Your task to perform on an android device: Show me productivity apps on the Play Store Image 0: 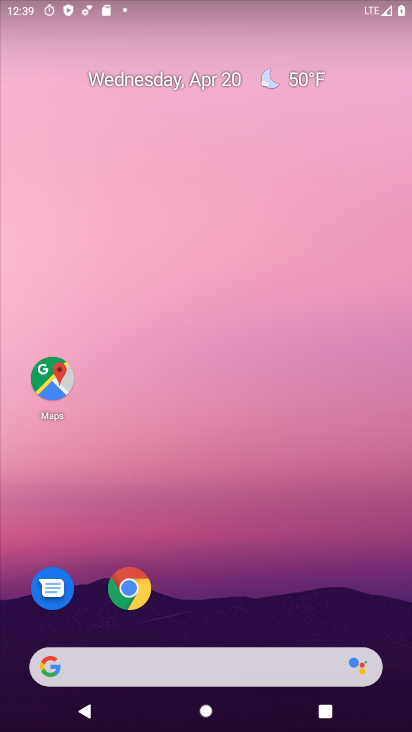
Step 0: drag from (216, 636) to (216, 82)
Your task to perform on an android device: Show me productivity apps on the Play Store Image 1: 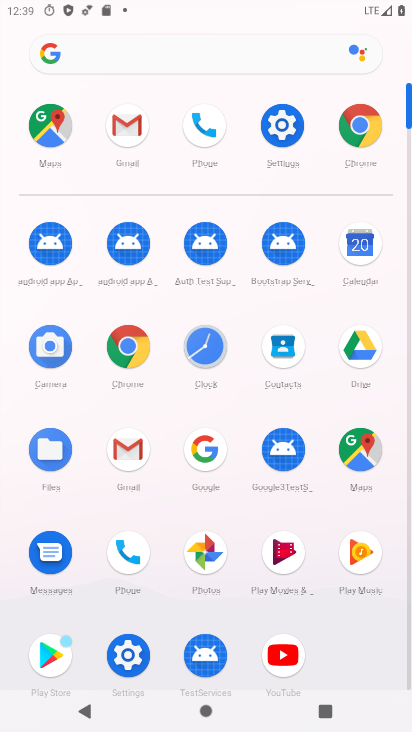
Step 1: click (61, 650)
Your task to perform on an android device: Show me productivity apps on the Play Store Image 2: 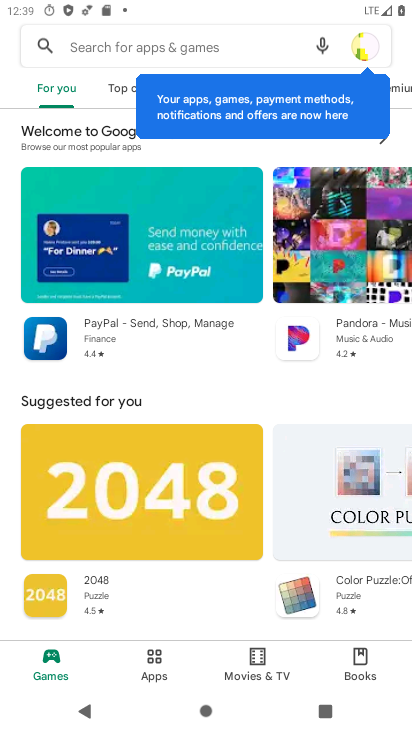
Step 2: click (155, 676)
Your task to perform on an android device: Show me productivity apps on the Play Store Image 3: 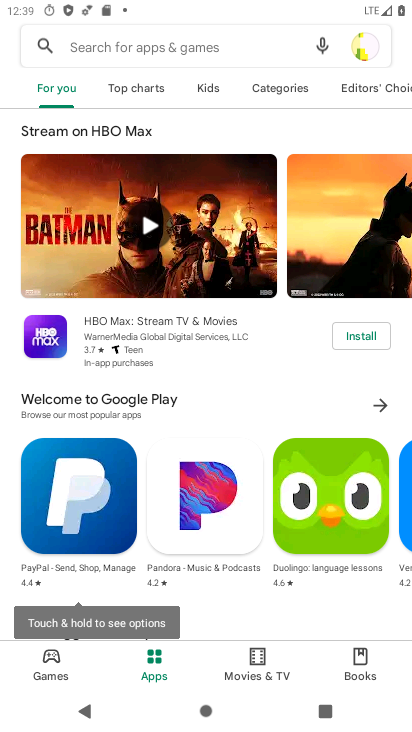
Step 3: click (281, 88)
Your task to perform on an android device: Show me productivity apps on the Play Store Image 4: 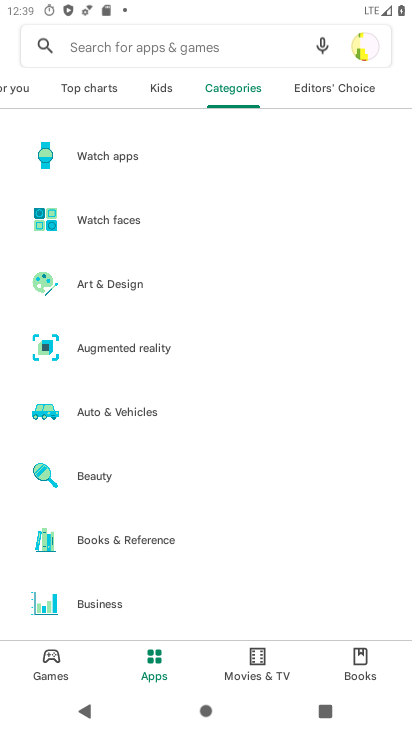
Step 4: drag from (287, 509) to (239, 12)
Your task to perform on an android device: Show me productivity apps on the Play Store Image 5: 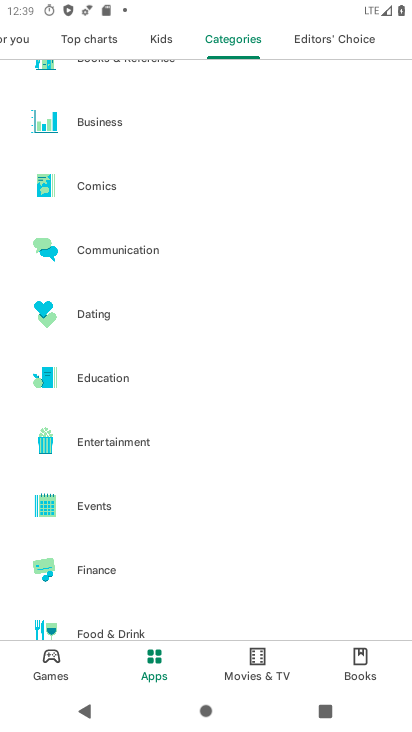
Step 5: drag from (211, 519) to (178, 75)
Your task to perform on an android device: Show me productivity apps on the Play Store Image 6: 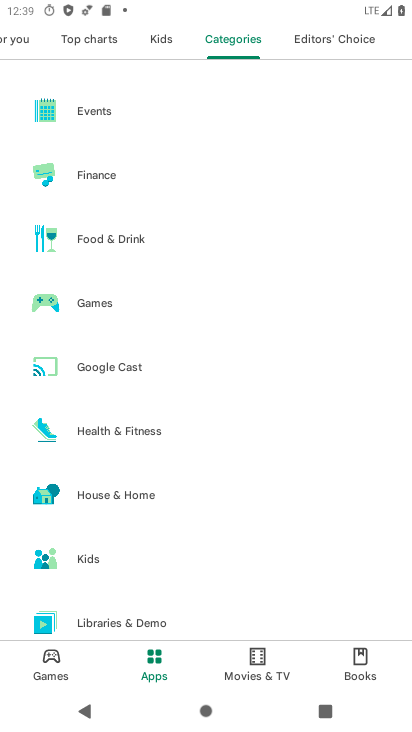
Step 6: drag from (165, 580) to (150, 50)
Your task to perform on an android device: Show me productivity apps on the Play Store Image 7: 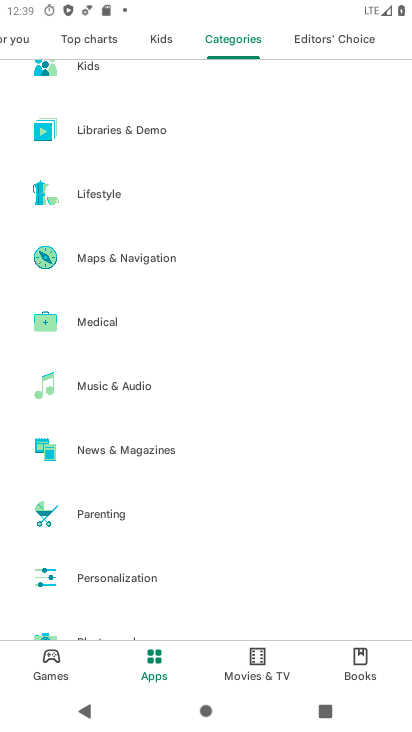
Step 7: drag from (137, 570) to (127, 278)
Your task to perform on an android device: Show me productivity apps on the Play Store Image 8: 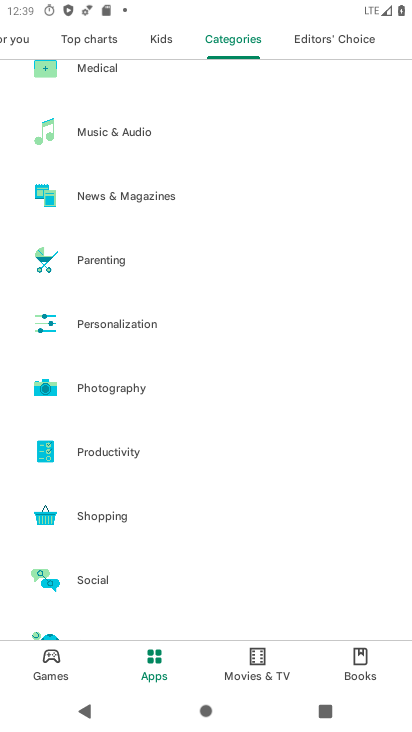
Step 8: click (121, 454)
Your task to perform on an android device: Show me productivity apps on the Play Store Image 9: 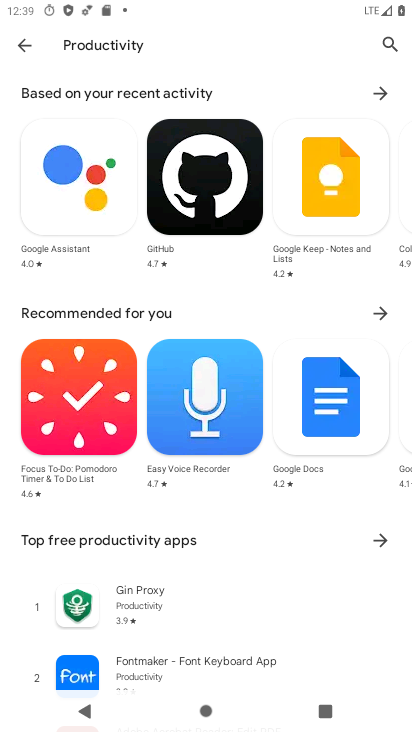
Step 9: task complete